Your task to perform on an android device: check the backup settings in the google photos Image 0: 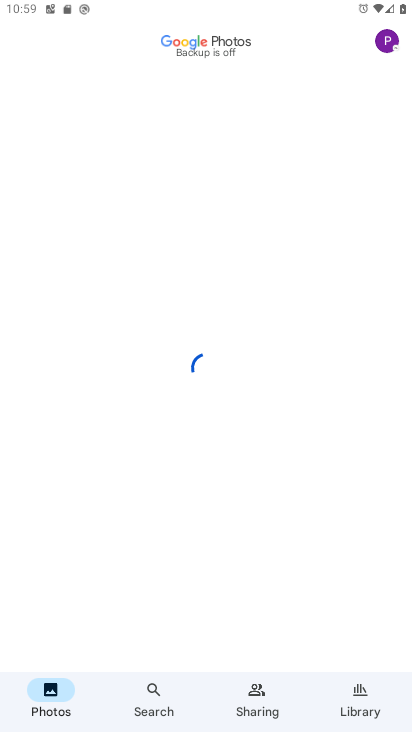
Step 0: press home button
Your task to perform on an android device: check the backup settings in the google photos Image 1: 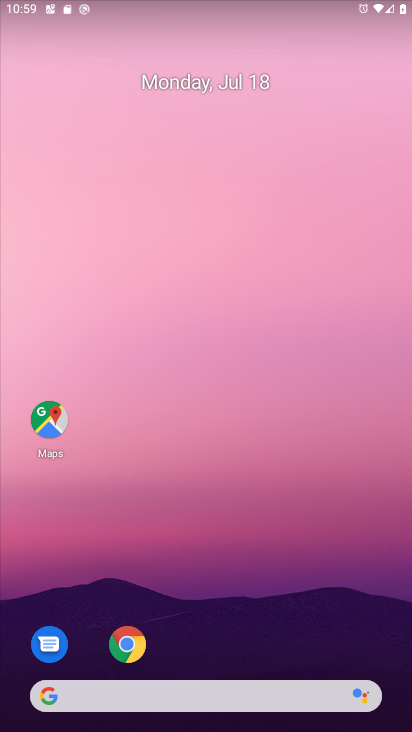
Step 1: drag from (211, 654) to (188, 38)
Your task to perform on an android device: check the backup settings in the google photos Image 2: 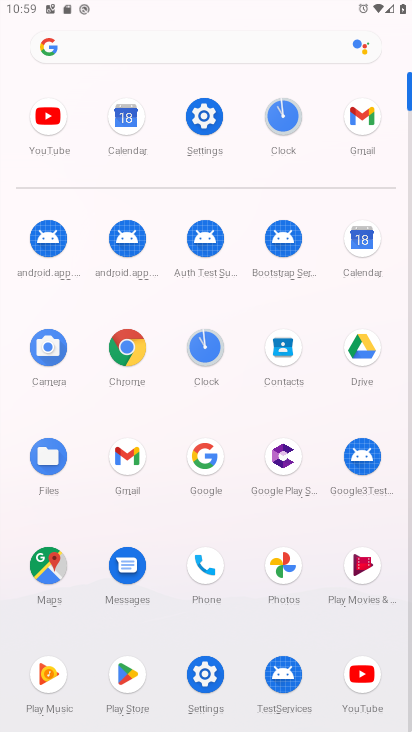
Step 2: click (270, 572)
Your task to perform on an android device: check the backup settings in the google photos Image 3: 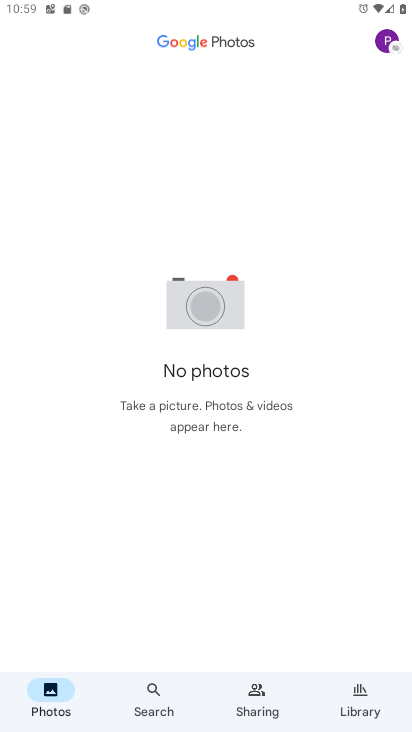
Step 3: task complete